Your task to perform on an android device: set the timer Image 0: 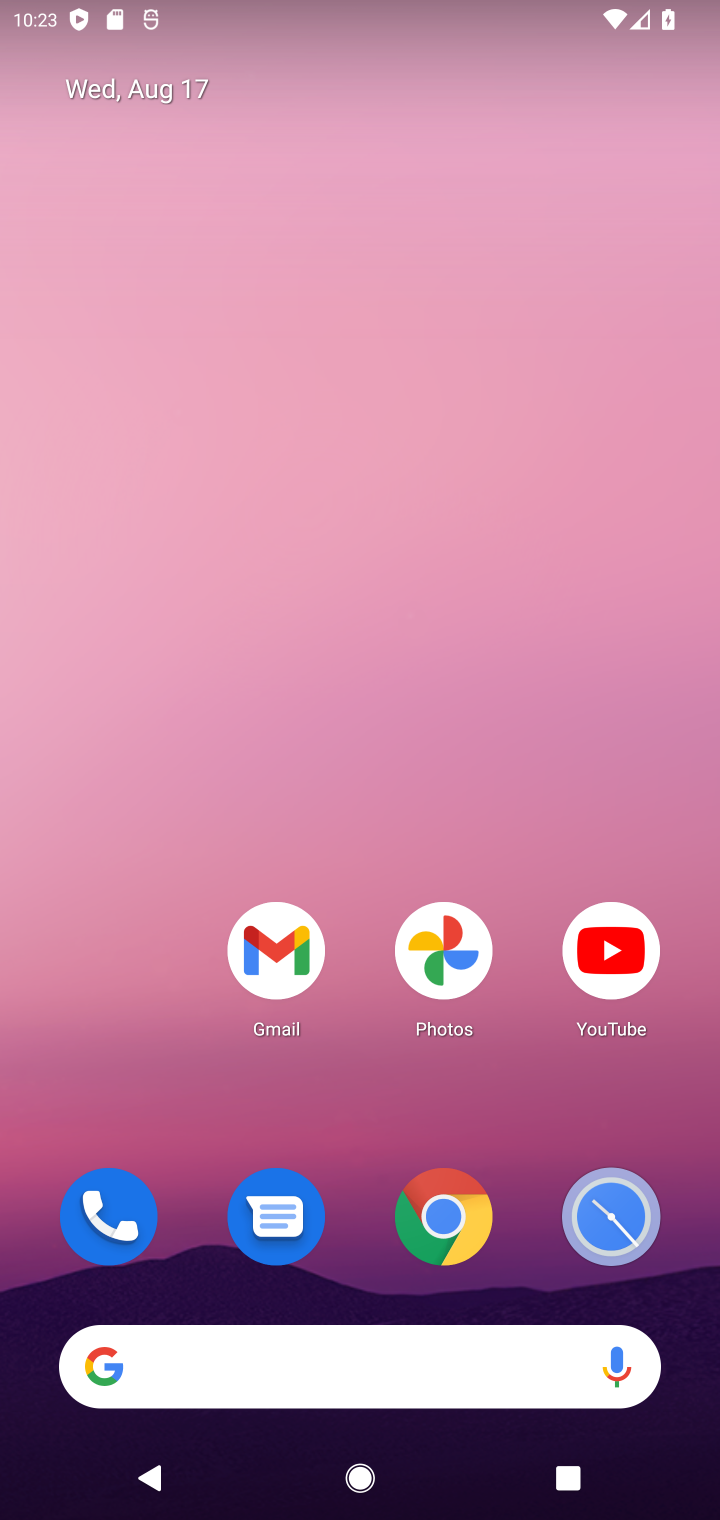
Step 0: click (613, 1203)
Your task to perform on an android device: set the timer Image 1: 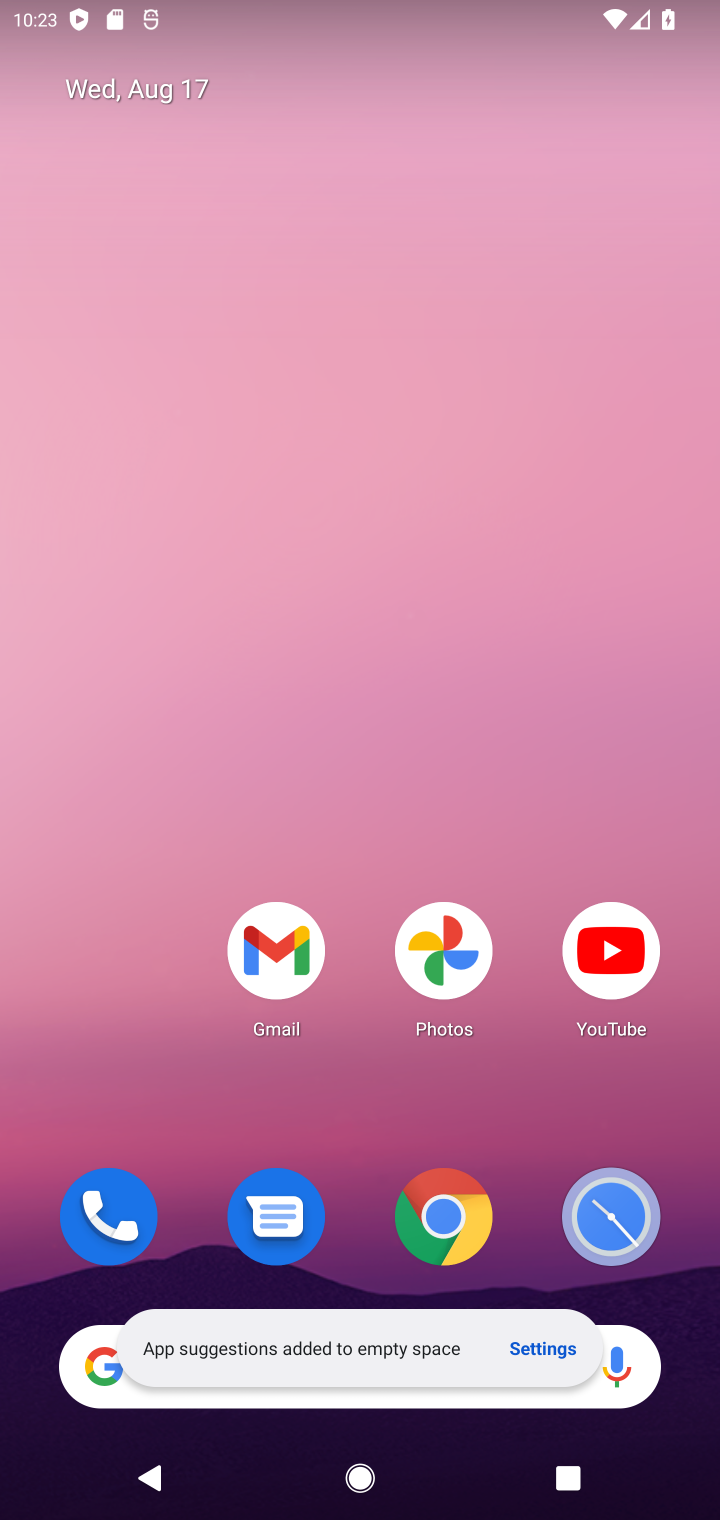
Step 1: click (606, 1207)
Your task to perform on an android device: set the timer Image 2: 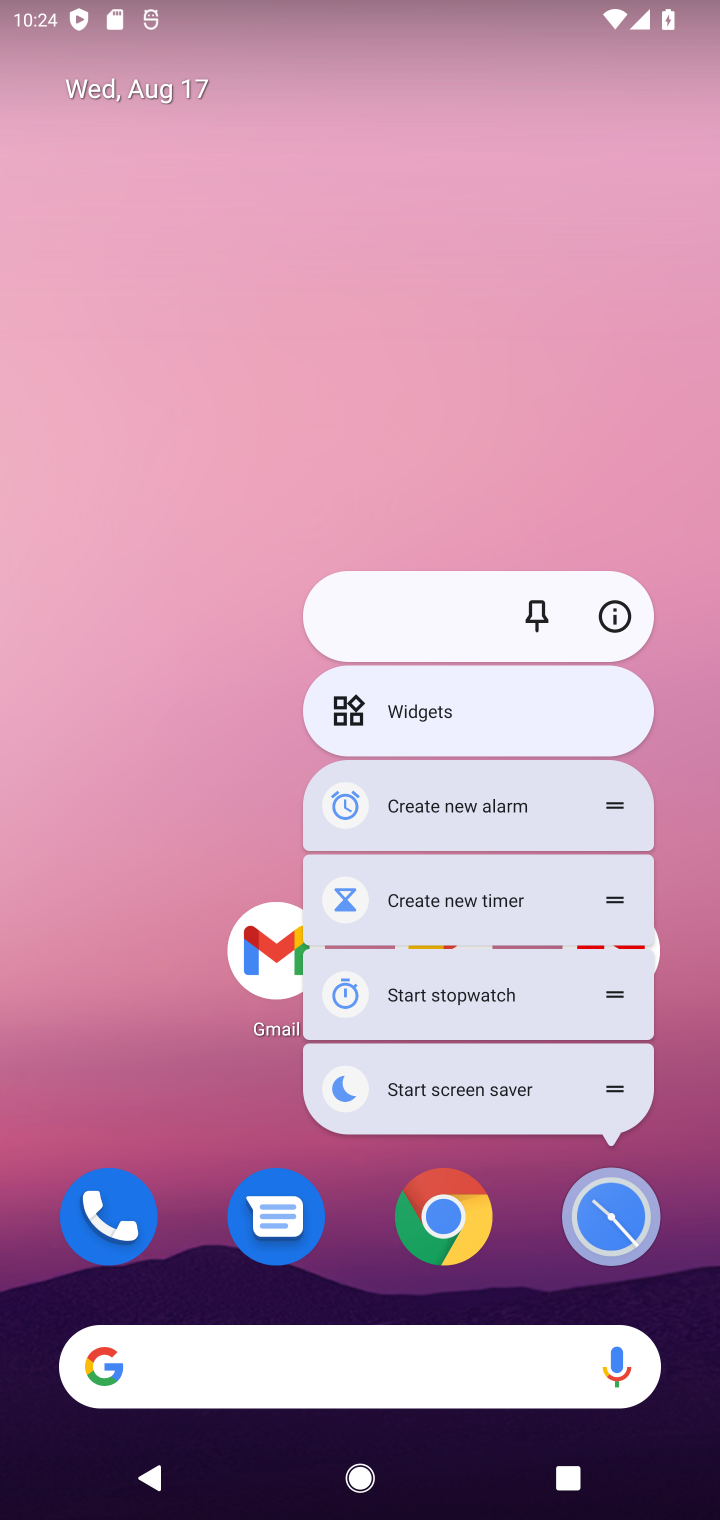
Step 2: click (590, 1253)
Your task to perform on an android device: set the timer Image 3: 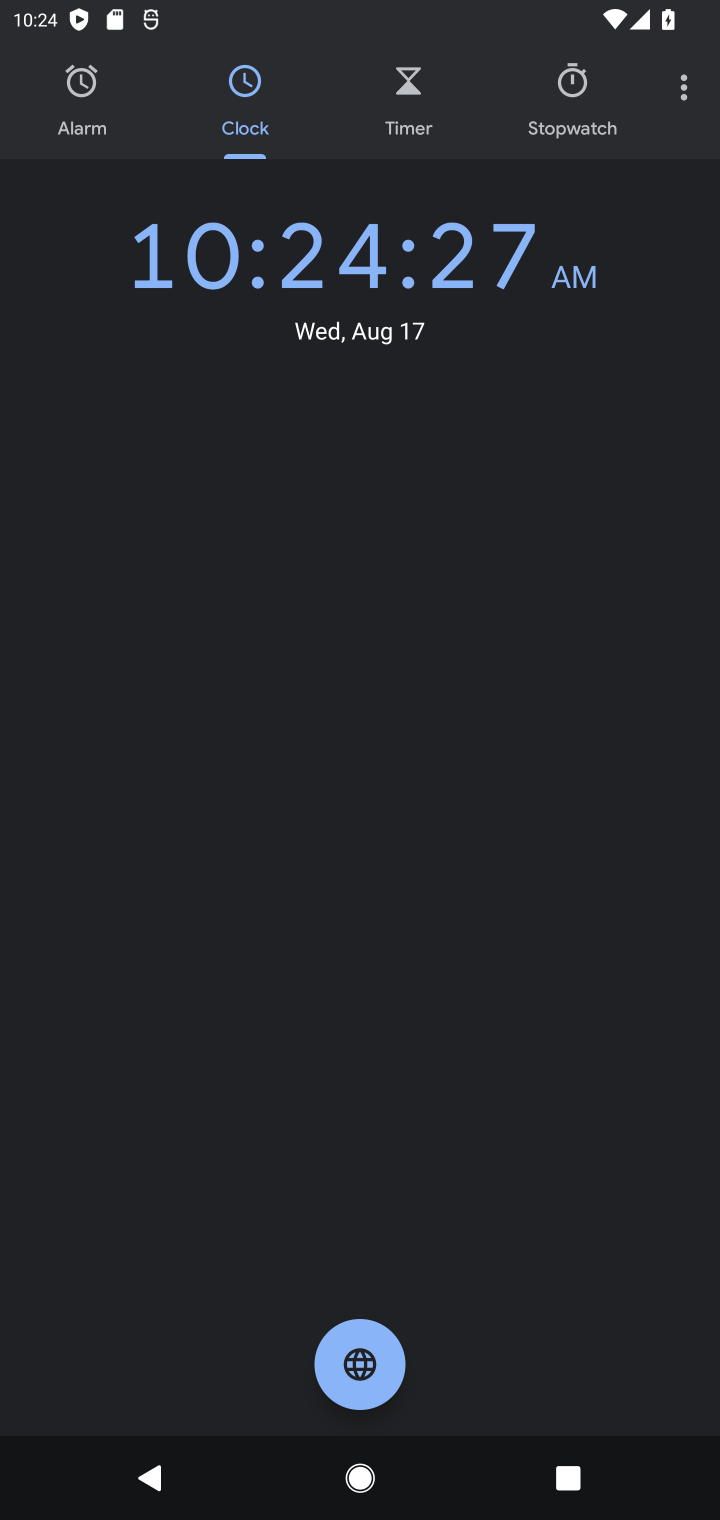
Step 3: click (408, 90)
Your task to perform on an android device: set the timer Image 4: 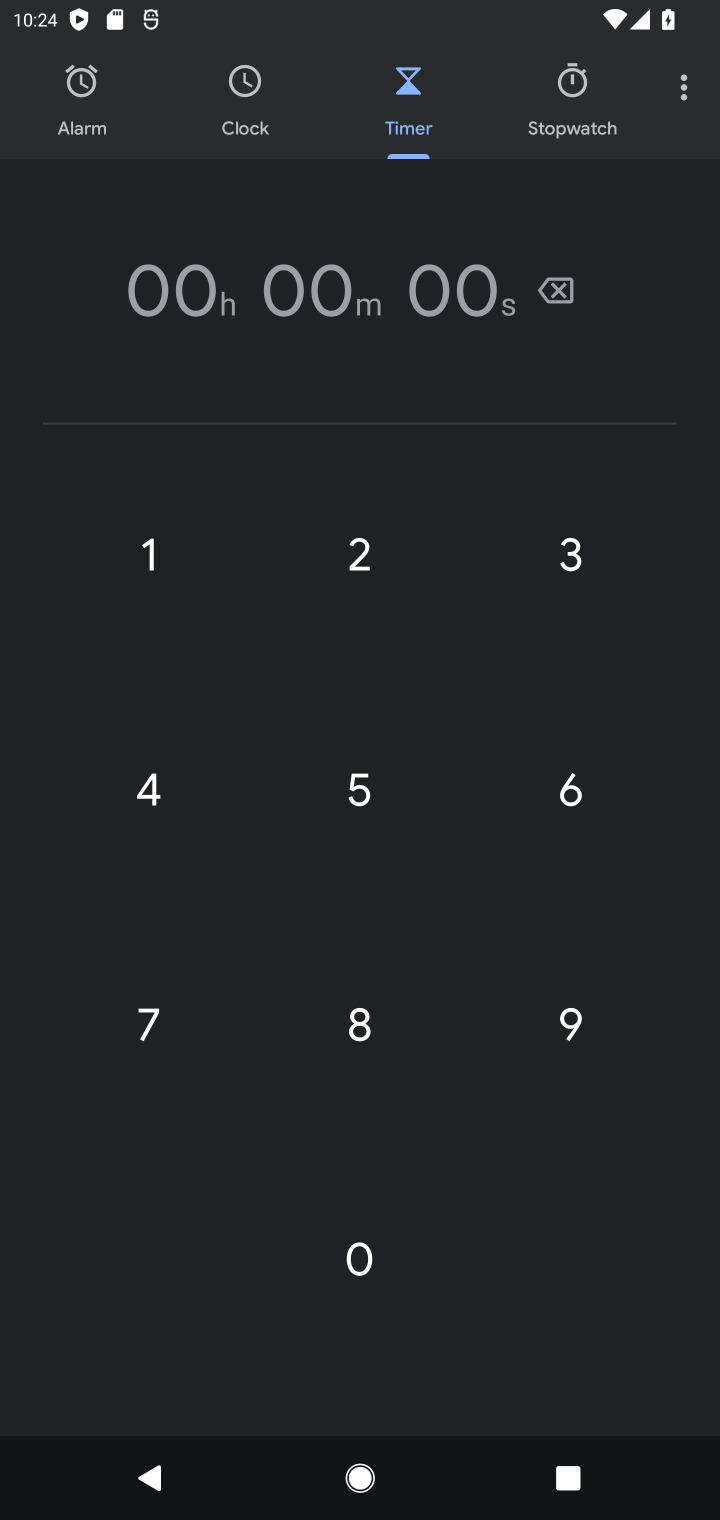
Step 4: click (380, 554)
Your task to perform on an android device: set the timer Image 5: 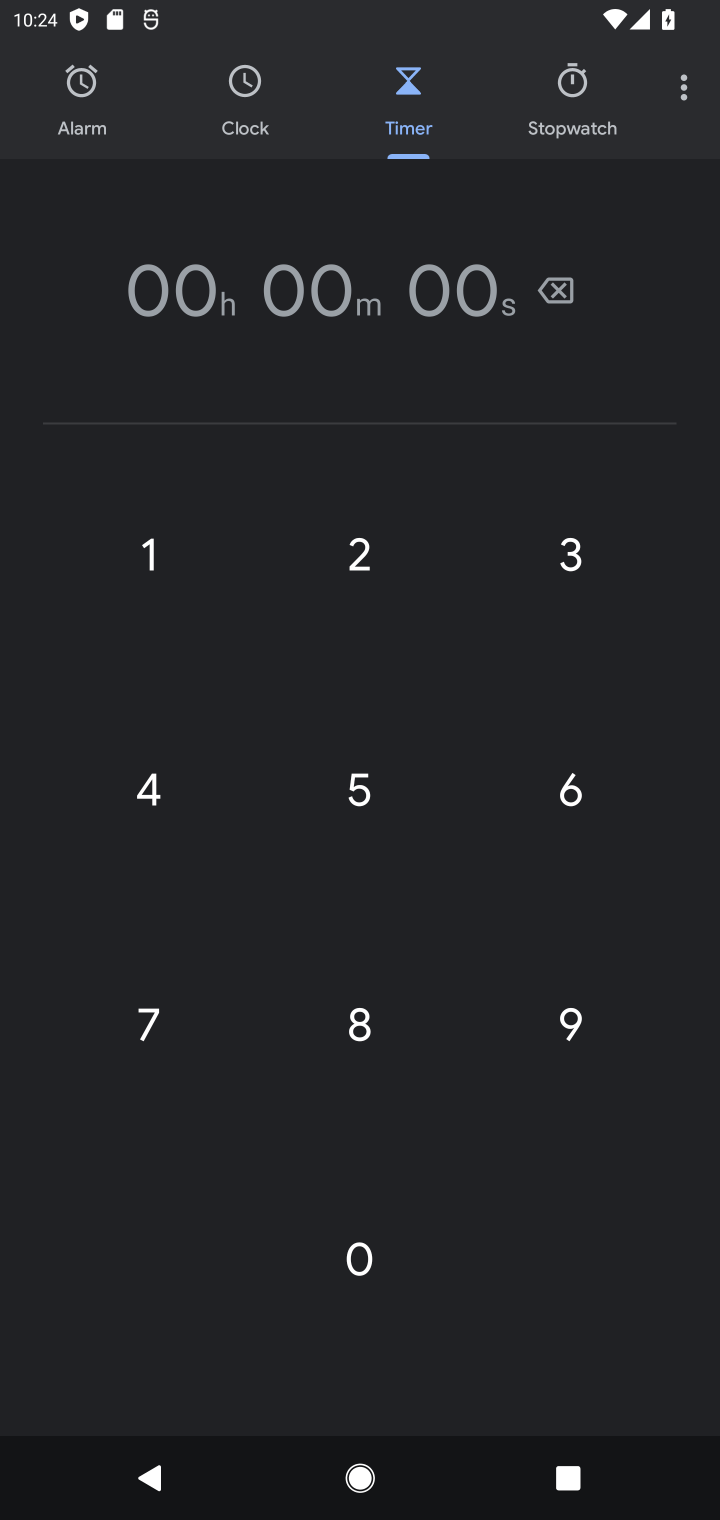
Step 5: click (581, 537)
Your task to perform on an android device: set the timer Image 6: 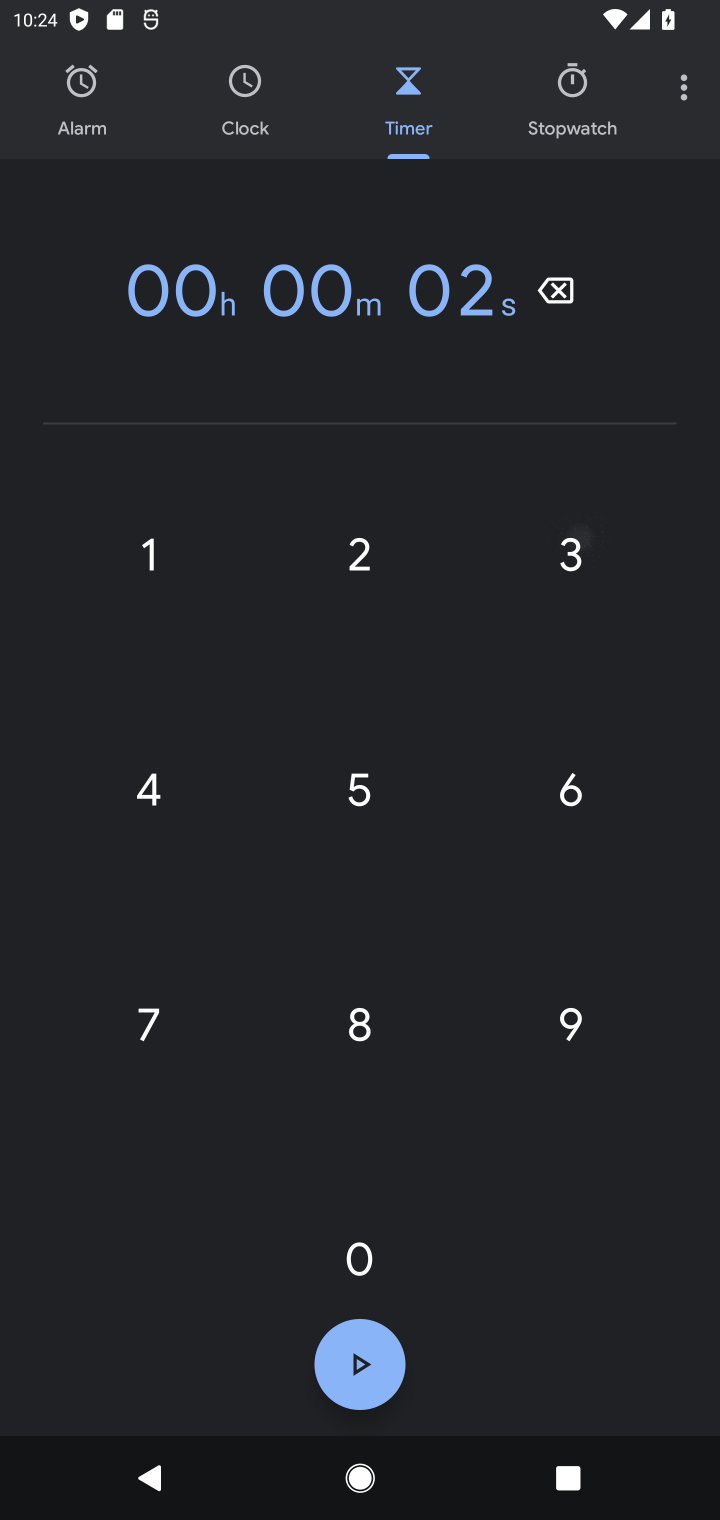
Step 6: click (369, 820)
Your task to perform on an android device: set the timer Image 7: 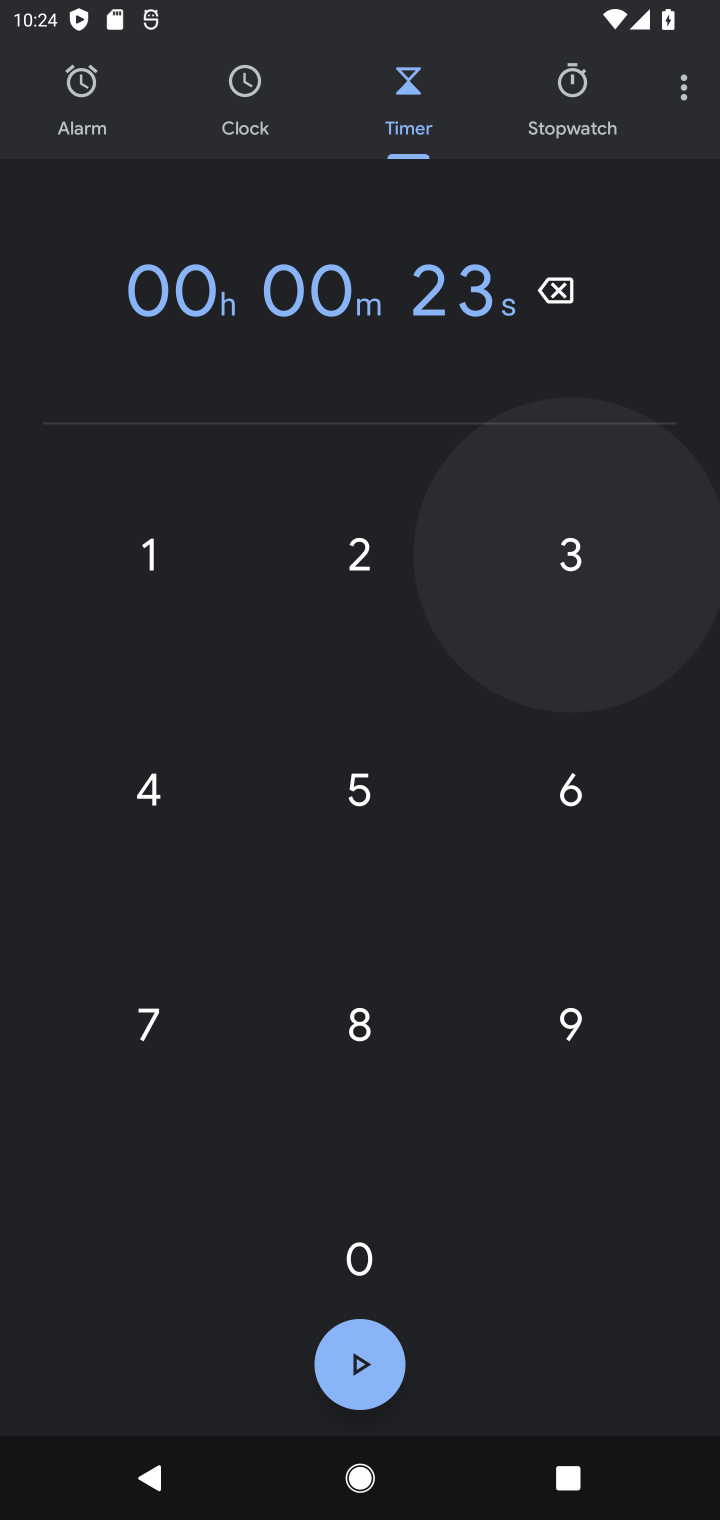
Step 7: click (563, 794)
Your task to perform on an android device: set the timer Image 8: 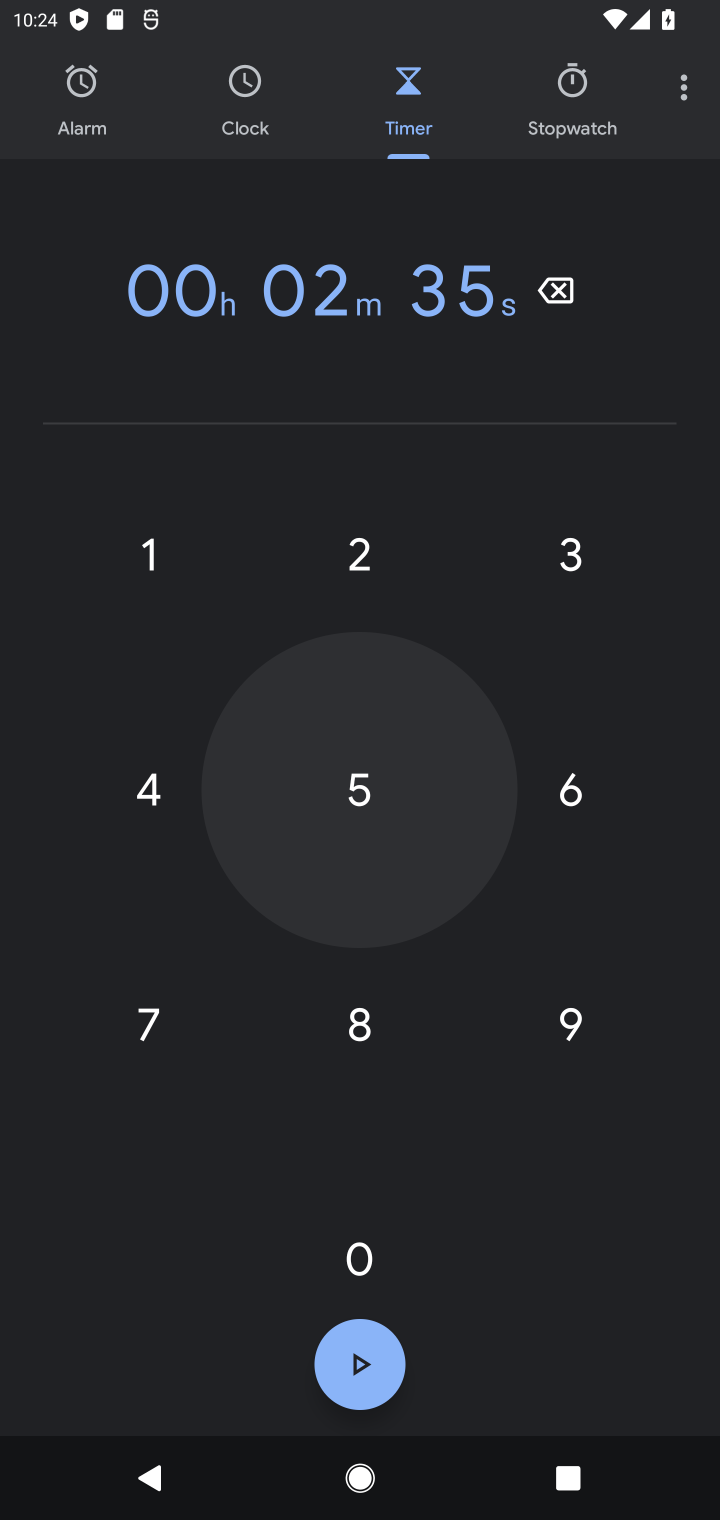
Step 8: click (382, 1045)
Your task to perform on an android device: set the timer Image 9: 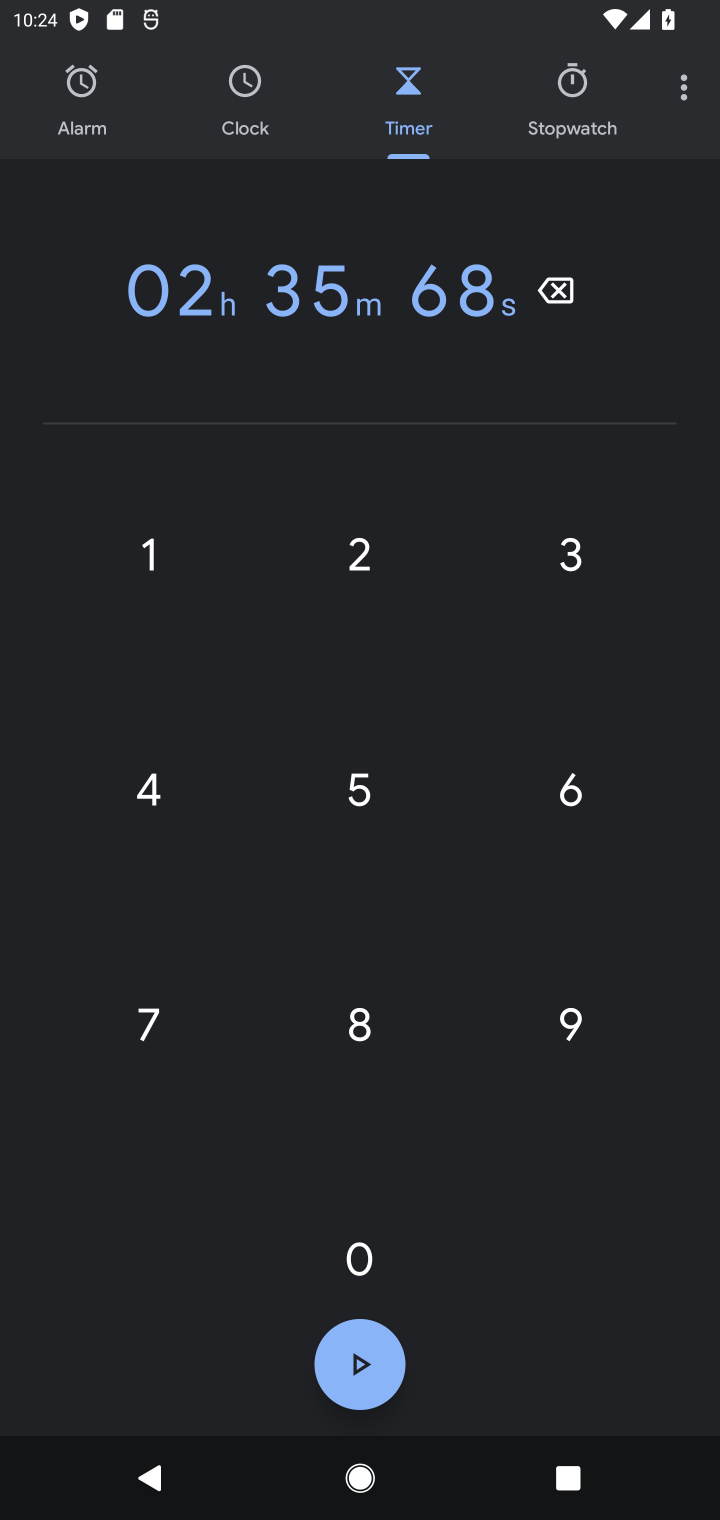
Step 9: click (372, 1352)
Your task to perform on an android device: set the timer Image 10: 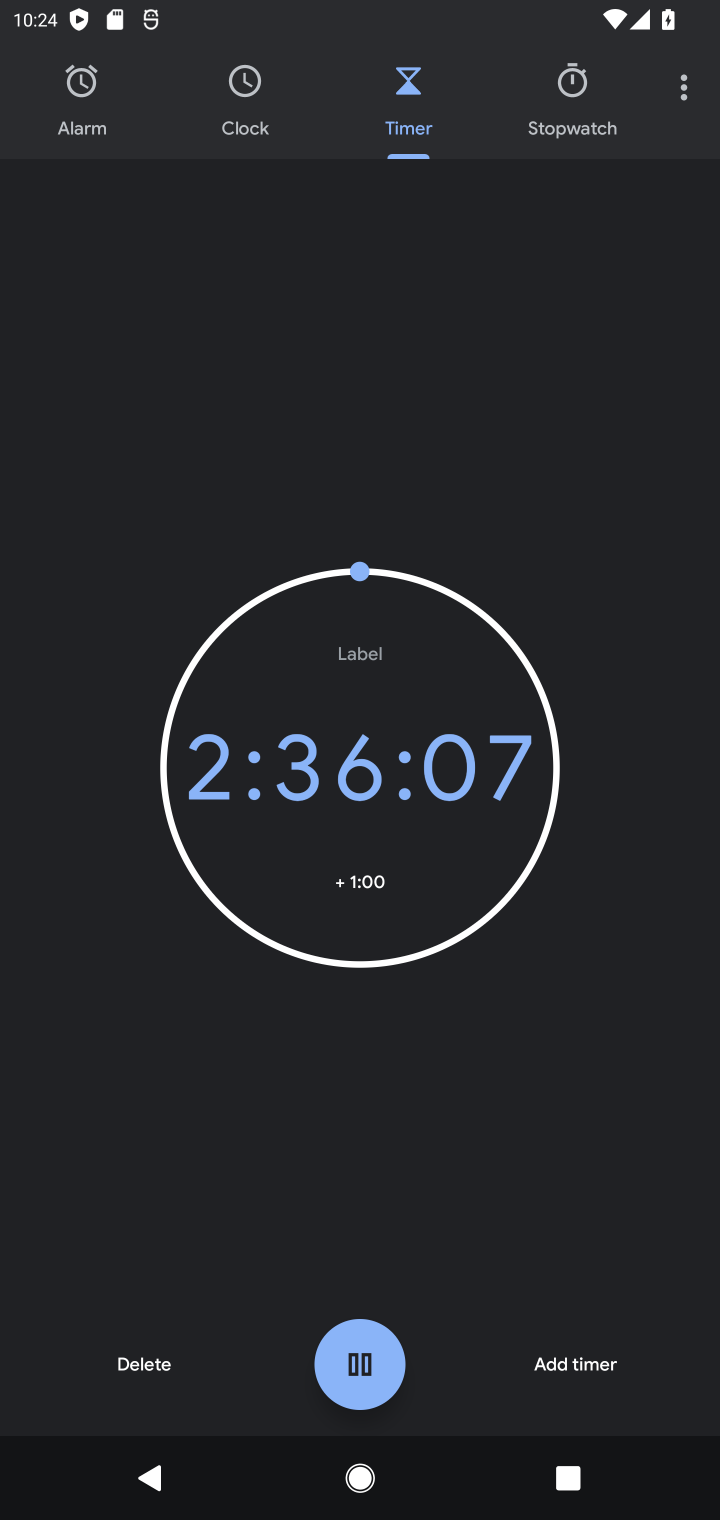
Step 10: task complete